Your task to perform on an android device: Is it going to rain this weekend? Image 0: 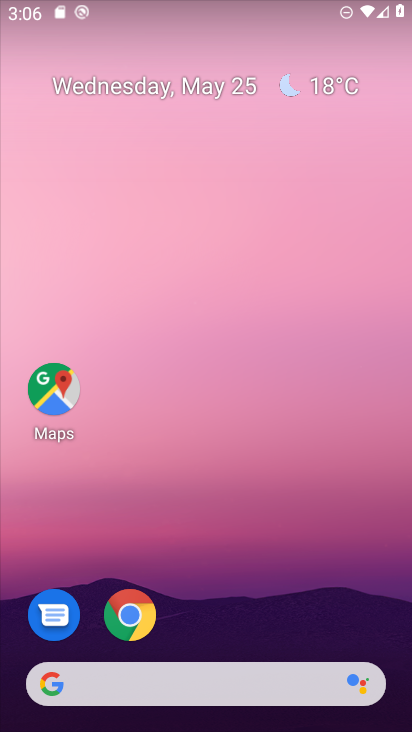
Step 0: click (266, 688)
Your task to perform on an android device: Is it going to rain this weekend? Image 1: 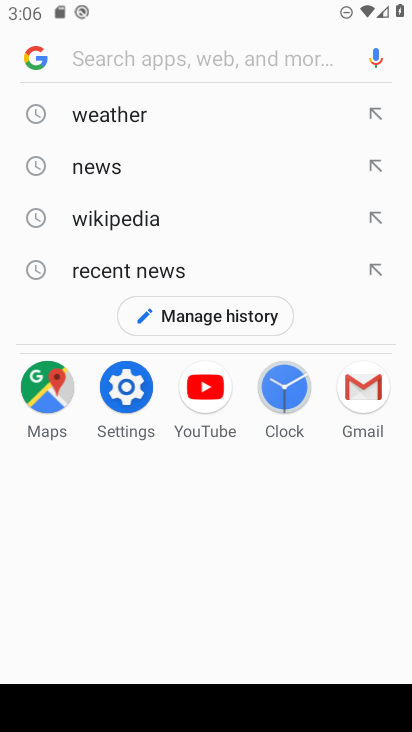
Step 1: click (102, 119)
Your task to perform on an android device: Is it going to rain this weekend? Image 2: 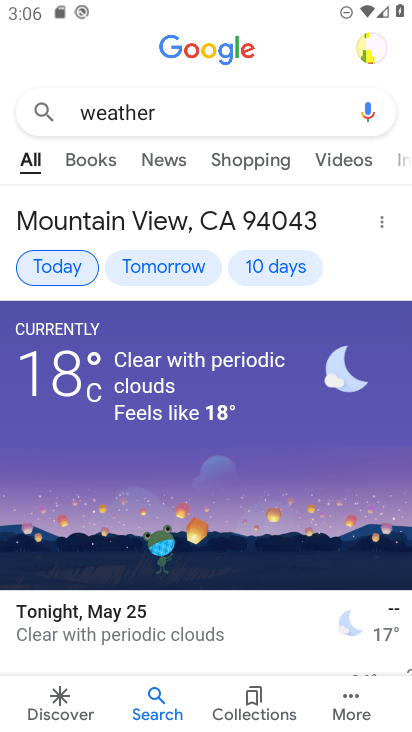
Step 2: click (86, 263)
Your task to perform on an android device: Is it going to rain this weekend? Image 3: 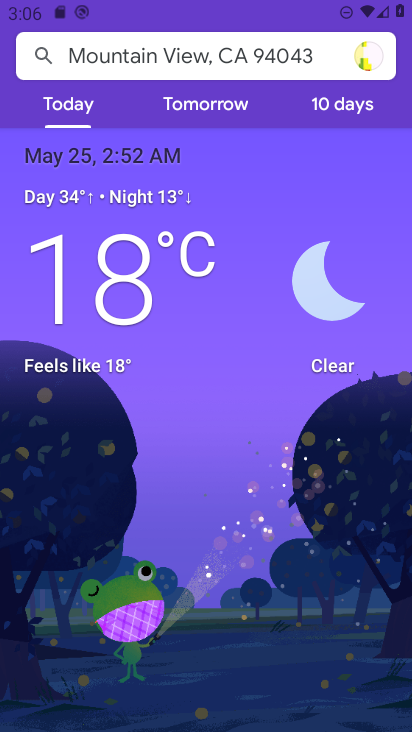
Step 3: click (365, 108)
Your task to perform on an android device: Is it going to rain this weekend? Image 4: 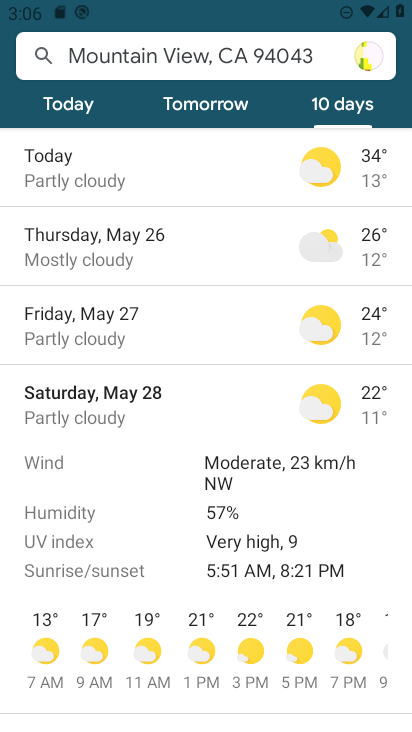
Step 4: task complete